Your task to perform on an android device: refresh tabs in the chrome app Image 0: 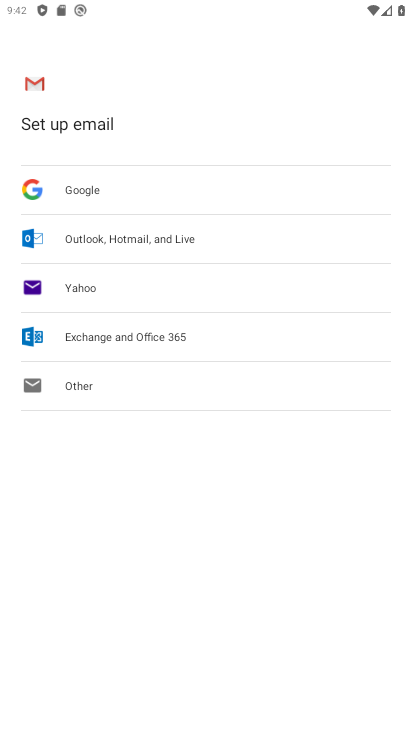
Step 0: press home button
Your task to perform on an android device: refresh tabs in the chrome app Image 1: 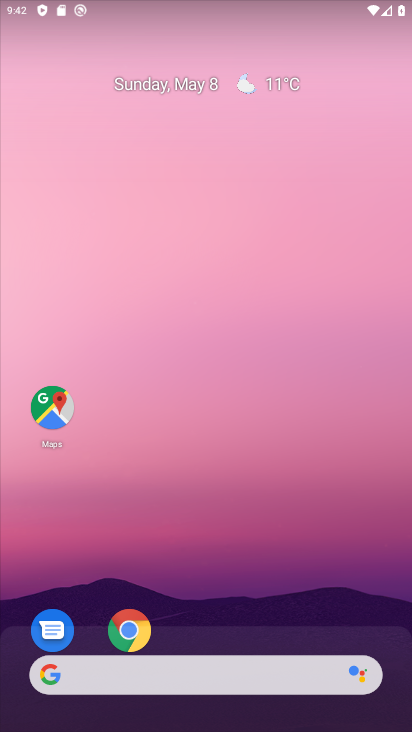
Step 1: drag from (300, 613) to (178, 49)
Your task to perform on an android device: refresh tabs in the chrome app Image 2: 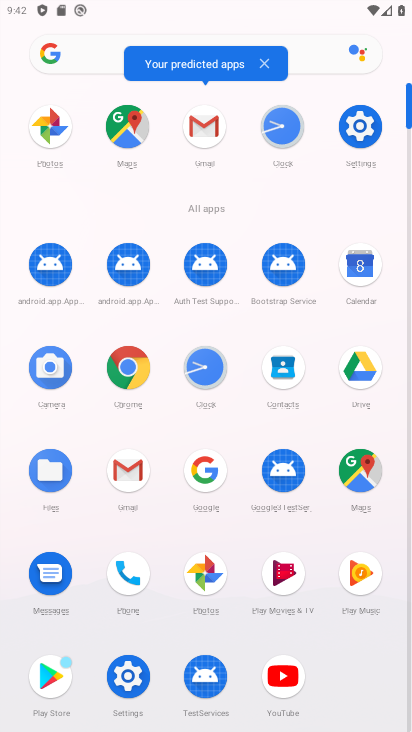
Step 2: click (121, 379)
Your task to perform on an android device: refresh tabs in the chrome app Image 3: 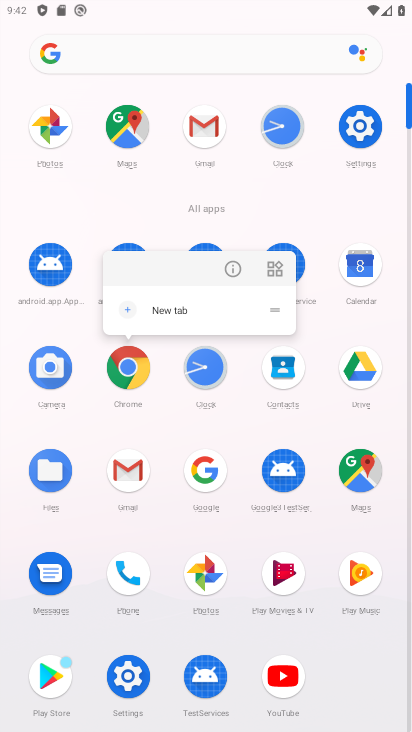
Step 3: click (135, 375)
Your task to perform on an android device: refresh tabs in the chrome app Image 4: 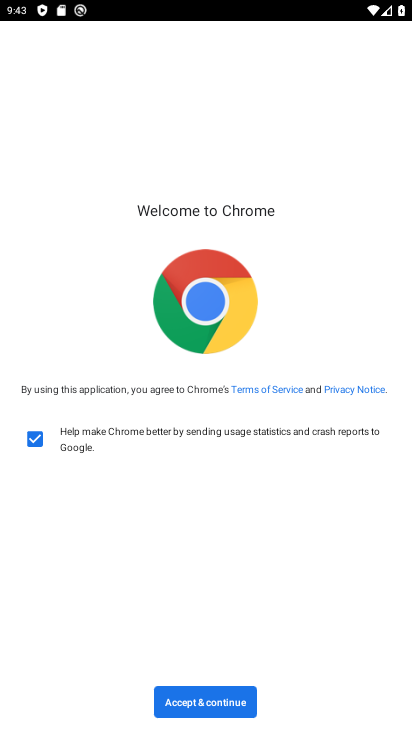
Step 4: click (175, 702)
Your task to perform on an android device: refresh tabs in the chrome app Image 5: 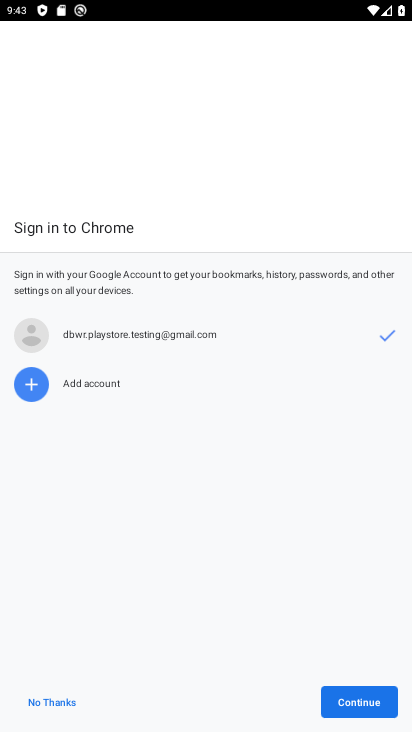
Step 5: click (337, 711)
Your task to perform on an android device: refresh tabs in the chrome app Image 6: 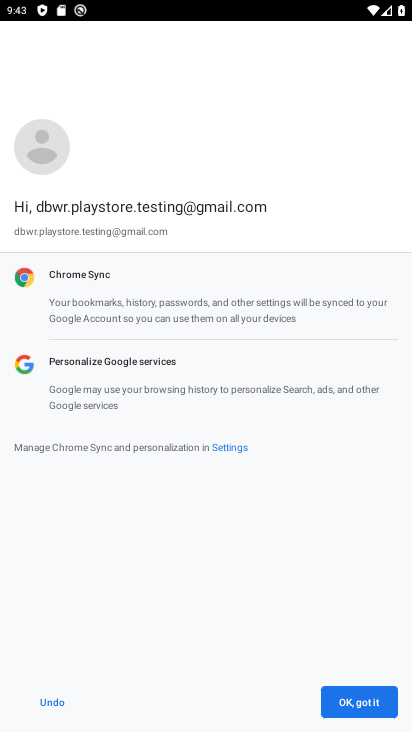
Step 6: click (337, 711)
Your task to perform on an android device: refresh tabs in the chrome app Image 7: 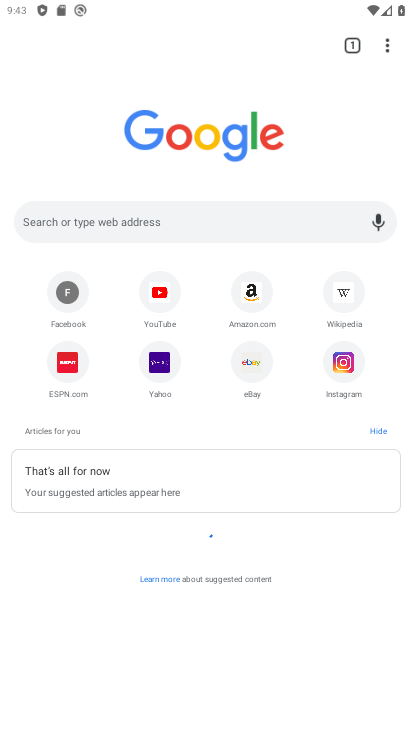
Step 7: click (387, 46)
Your task to perform on an android device: refresh tabs in the chrome app Image 8: 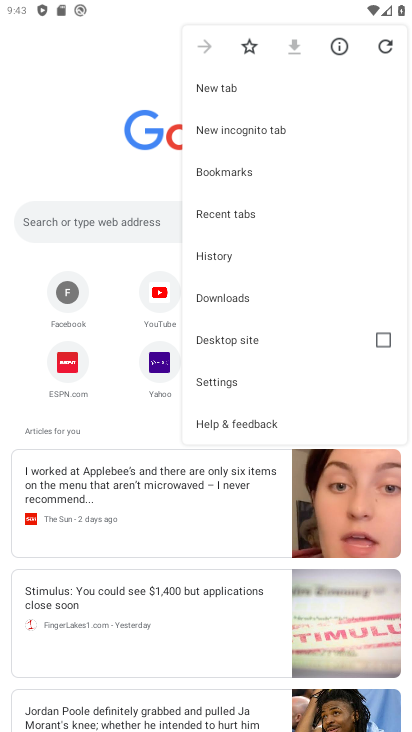
Step 8: click (383, 52)
Your task to perform on an android device: refresh tabs in the chrome app Image 9: 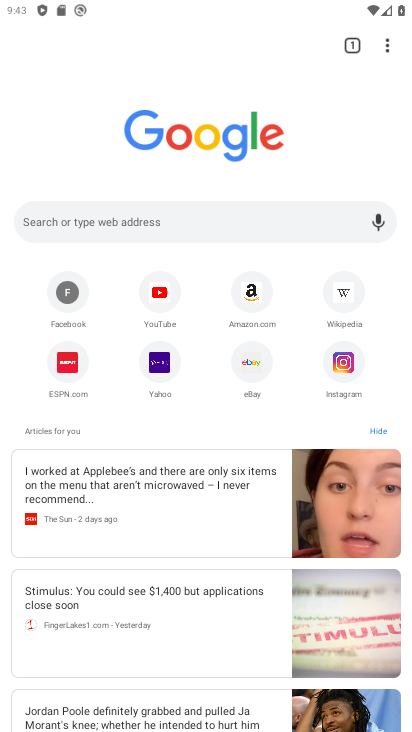
Step 9: task complete